Your task to perform on an android device: Open location settings Image 0: 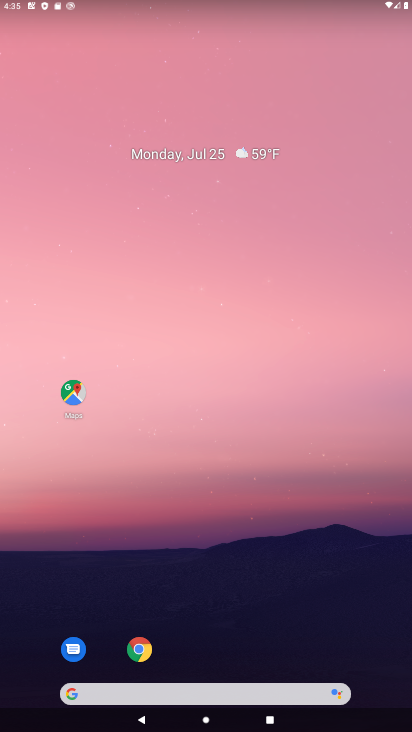
Step 0: drag from (323, 599) to (400, 146)
Your task to perform on an android device: Open location settings Image 1: 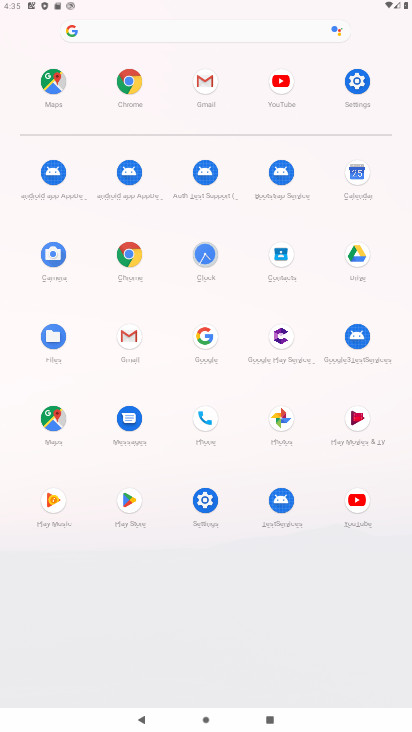
Step 1: click (340, 89)
Your task to perform on an android device: Open location settings Image 2: 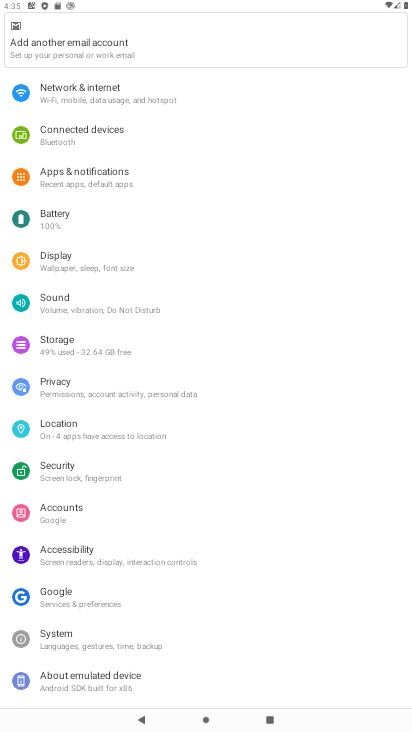
Step 2: click (46, 427)
Your task to perform on an android device: Open location settings Image 3: 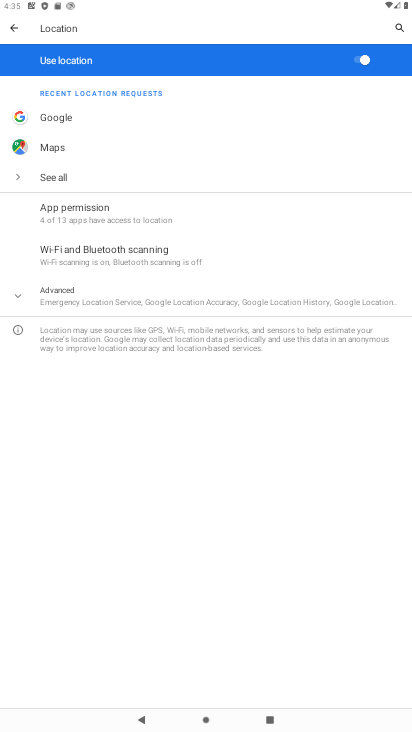
Step 3: task complete